Your task to perform on an android device: Open maps Image 0: 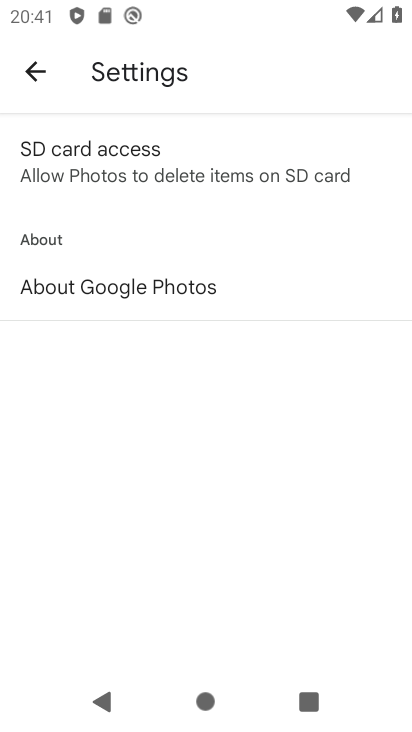
Step 0: press home button
Your task to perform on an android device: Open maps Image 1: 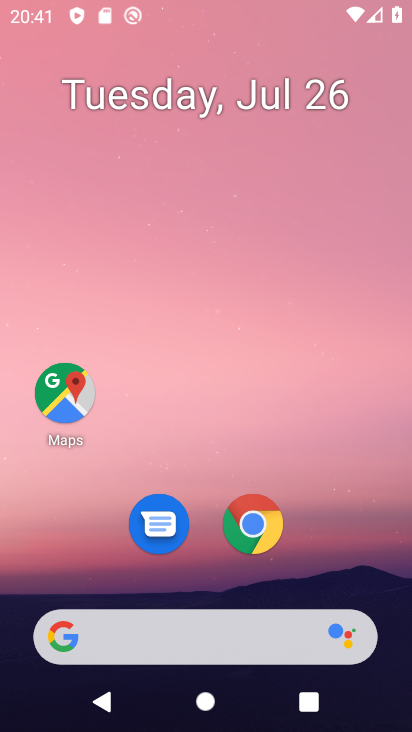
Step 1: press home button
Your task to perform on an android device: Open maps Image 2: 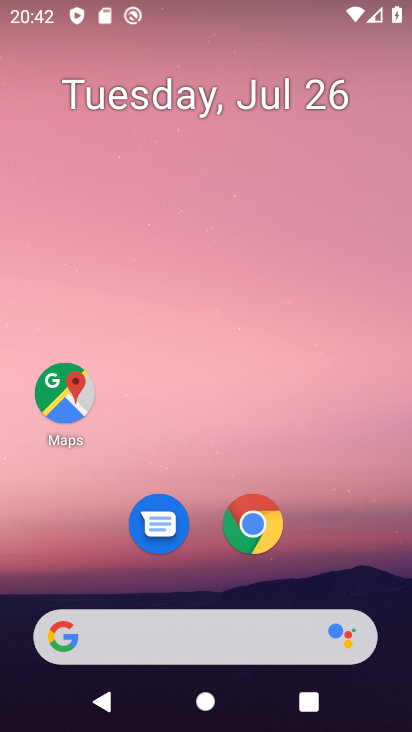
Step 2: click (66, 397)
Your task to perform on an android device: Open maps Image 3: 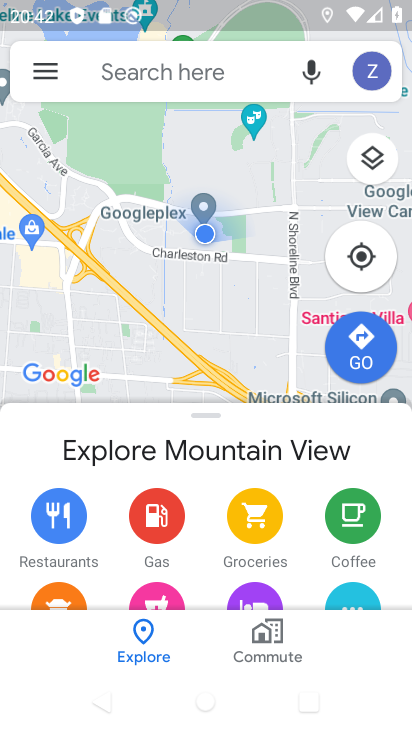
Step 3: task complete